Your task to perform on an android device: Do I have any events this weekend? Image 0: 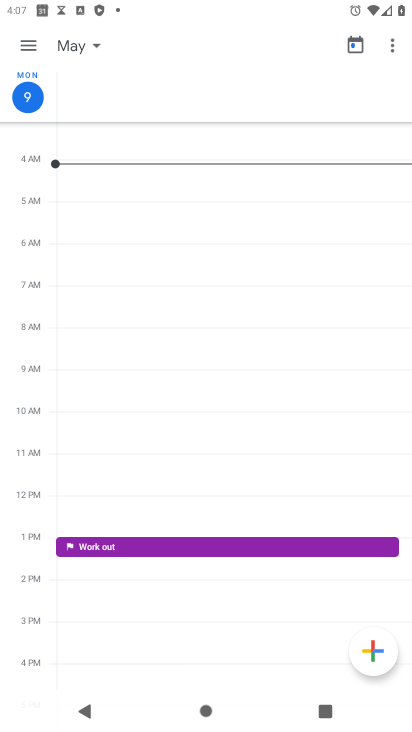
Step 0: click (25, 36)
Your task to perform on an android device: Do I have any events this weekend? Image 1: 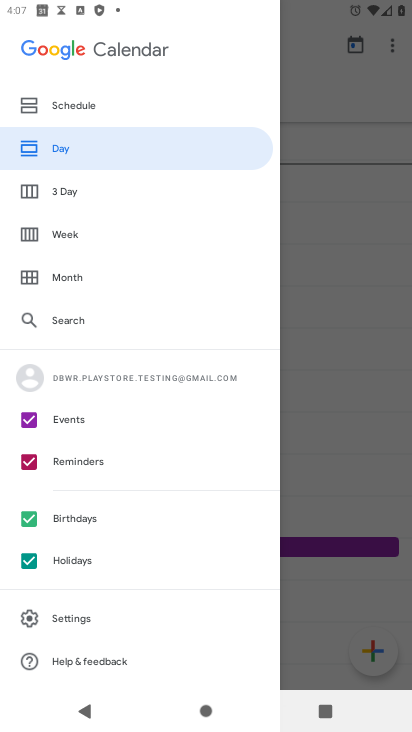
Step 1: click (76, 239)
Your task to perform on an android device: Do I have any events this weekend? Image 2: 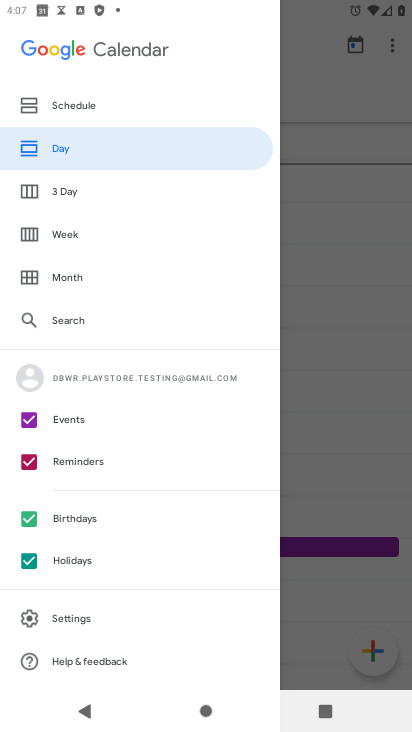
Step 2: click (72, 234)
Your task to perform on an android device: Do I have any events this weekend? Image 3: 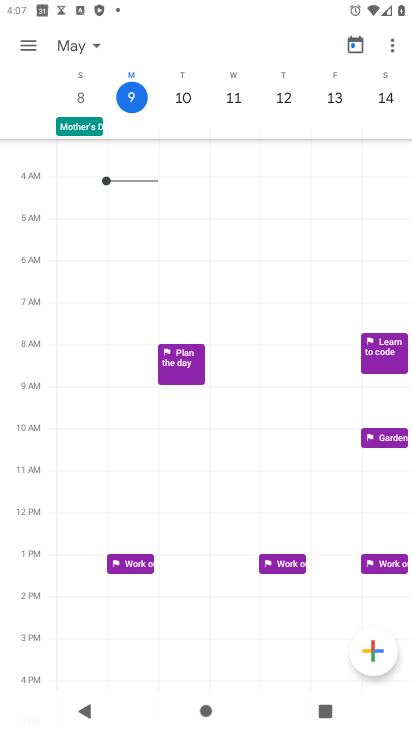
Step 3: task complete